Your task to perform on an android device: What's the weather going to be tomorrow? Image 0: 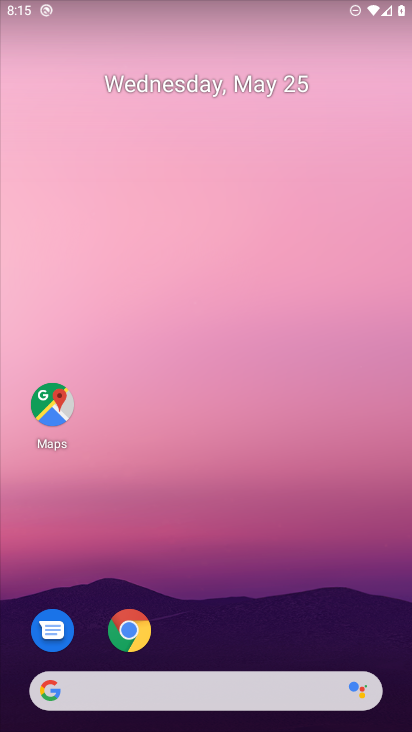
Step 0: drag from (226, 632) to (333, 326)
Your task to perform on an android device: What's the weather going to be tomorrow? Image 1: 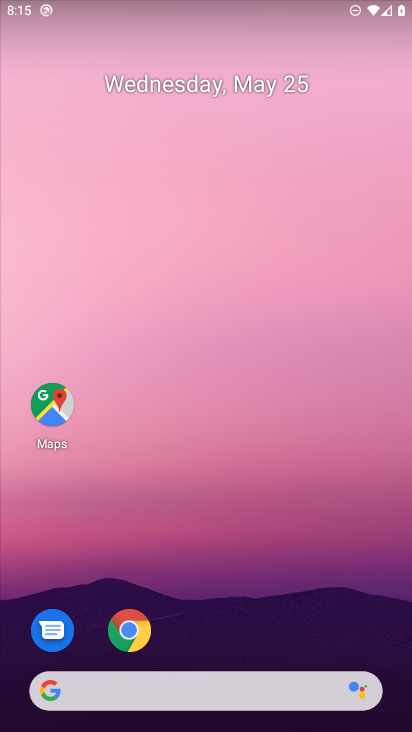
Step 1: drag from (231, 653) to (285, 313)
Your task to perform on an android device: What's the weather going to be tomorrow? Image 2: 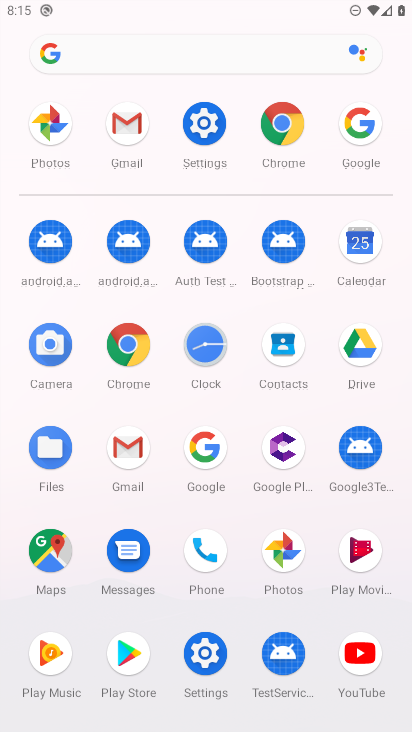
Step 2: click (211, 440)
Your task to perform on an android device: What's the weather going to be tomorrow? Image 3: 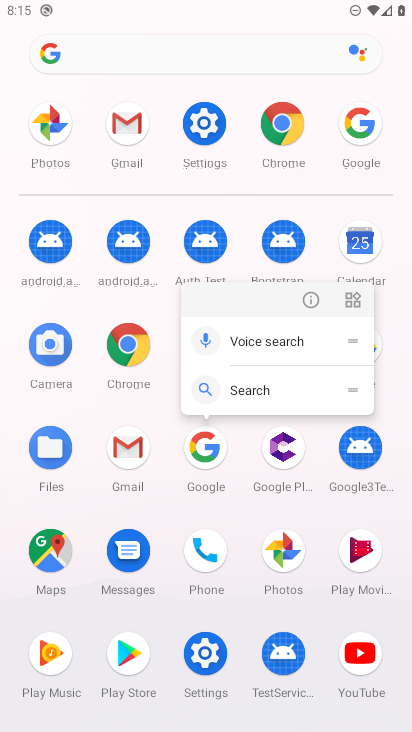
Step 3: click (211, 440)
Your task to perform on an android device: What's the weather going to be tomorrow? Image 4: 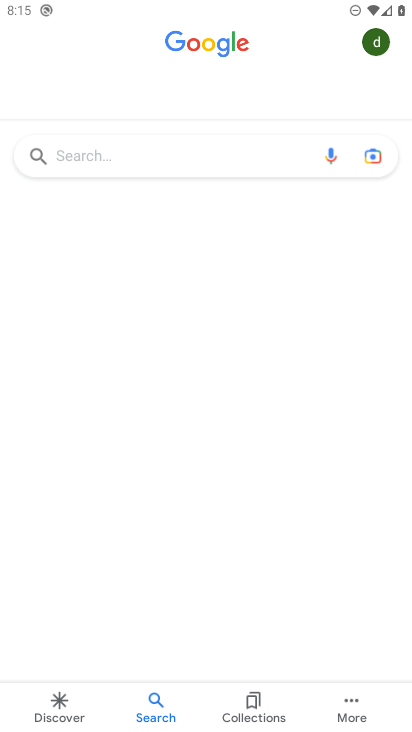
Step 4: click (163, 162)
Your task to perform on an android device: What's the weather going to be tomorrow? Image 5: 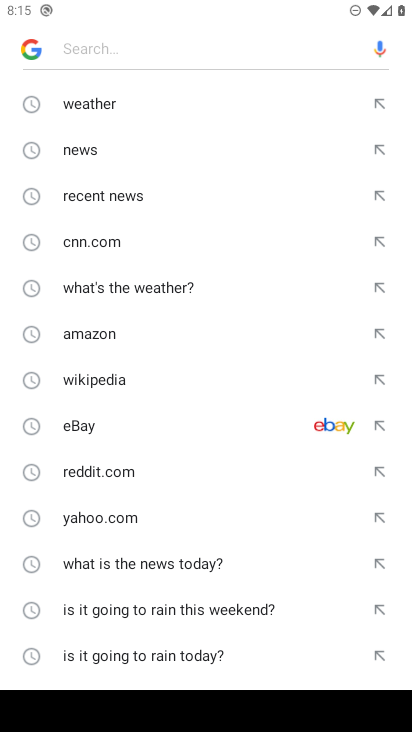
Step 5: drag from (100, 663) to (204, 390)
Your task to perform on an android device: What's the weather going to be tomorrow? Image 6: 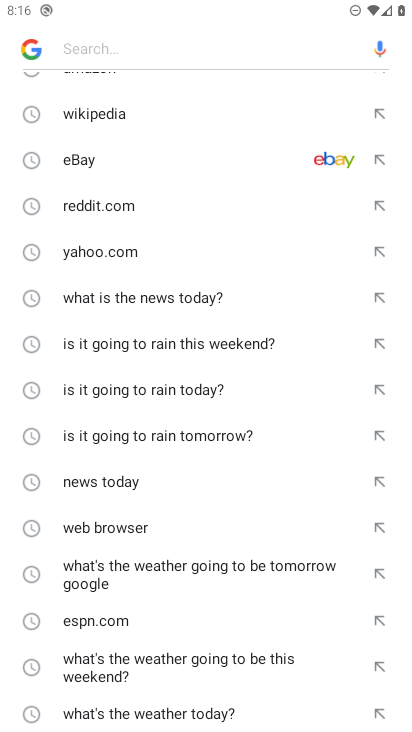
Step 6: click (156, 574)
Your task to perform on an android device: What's the weather going to be tomorrow? Image 7: 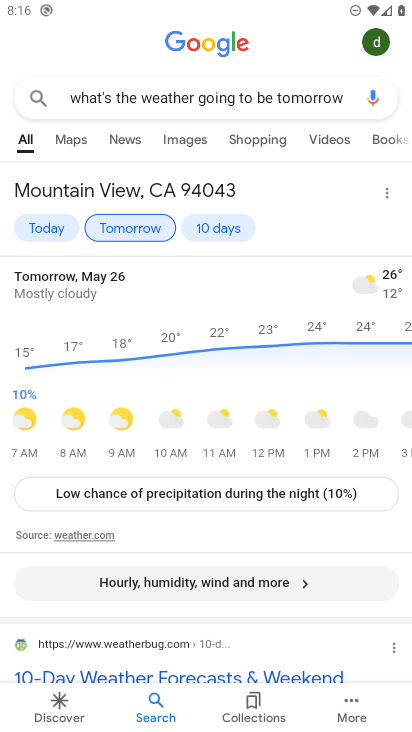
Step 7: click (169, 581)
Your task to perform on an android device: What's the weather going to be tomorrow? Image 8: 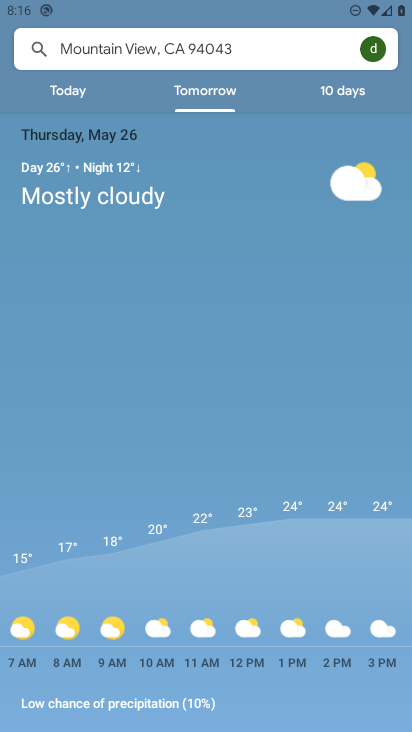
Step 8: task complete